Your task to perform on an android device: Go to sound settings Image 0: 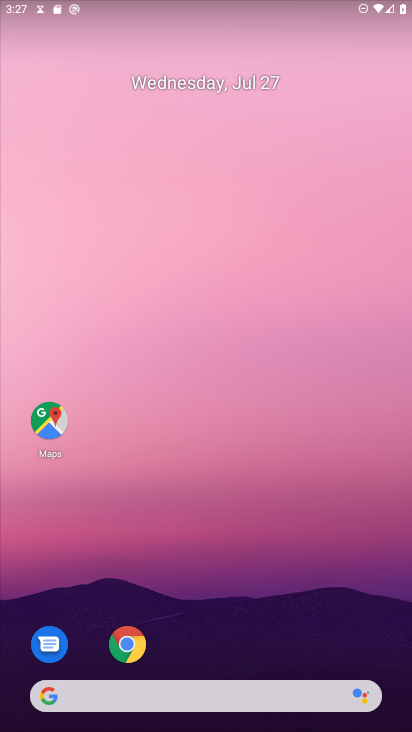
Step 0: drag from (224, 455) to (253, 3)
Your task to perform on an android device: Go to sound settings Image 1: 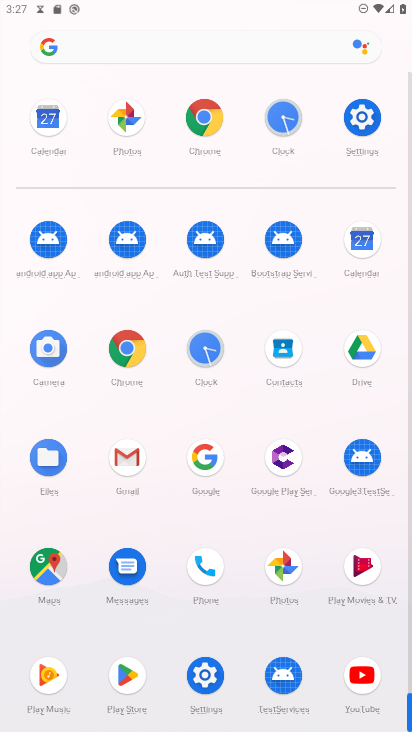
Step 1: click (200, 690)
Your task to perform on an android device: Go to sound settings Image 2: 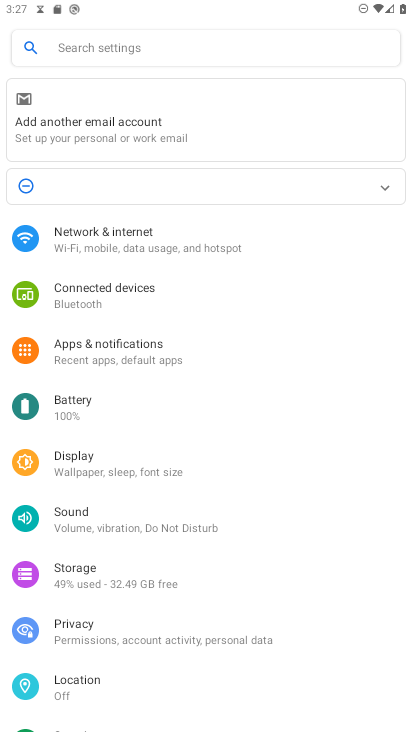
Step 2: click (106, 523)
Your task to perform on an android device: Go to sound settings Image 3: 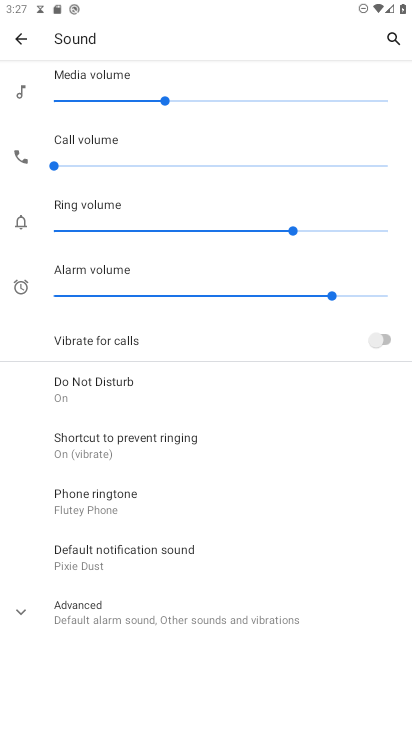
Step 3: task complete